Your task to perform on an android device: find snoozed emails in the gmail app Image 0: 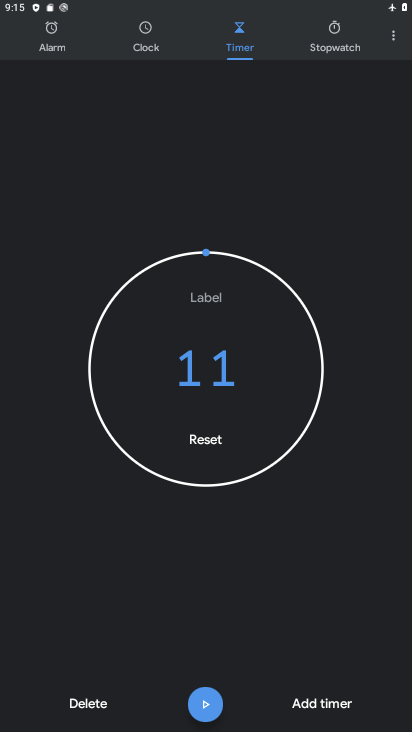
Step 0: press home button
Your task to perform on an android device: find snoozed emails in the gmail app Image 1: 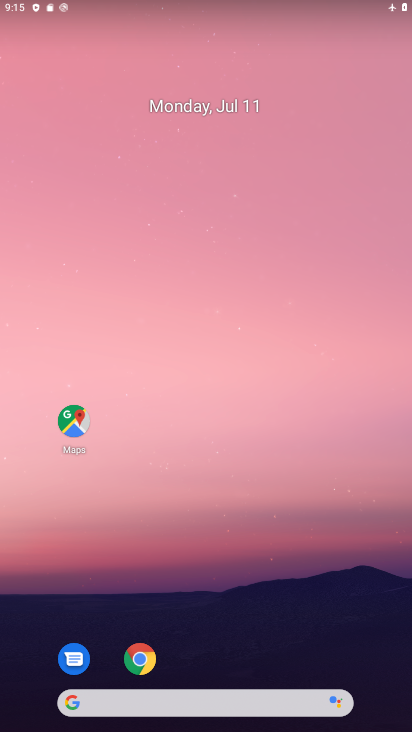
Step 1: drag from (200, 622) to (185, 279)
Your task to perform on an android device: find snoozed emails in the gmail app Image 2: 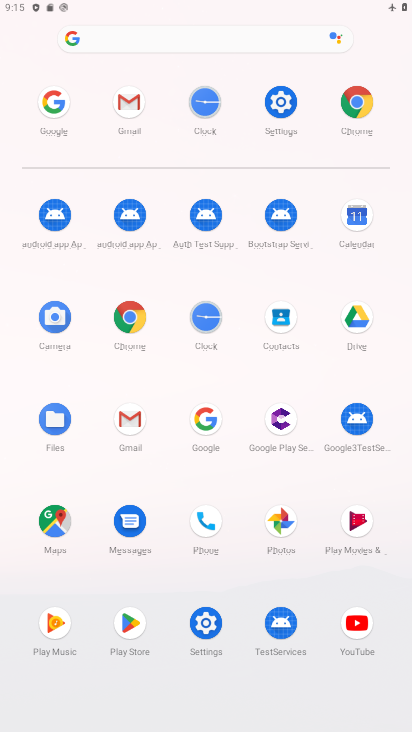
Step 2: click (118, 97)
Your task to perform on an android device: find snoozed emails in the gmail app Image 3: 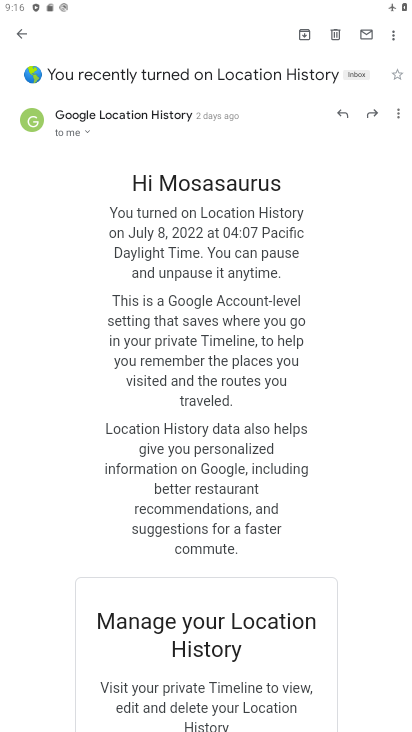
Step 3: click (28, 30)
Your task to perform on an android device: find snoozed emails in the gmail app Image 4: 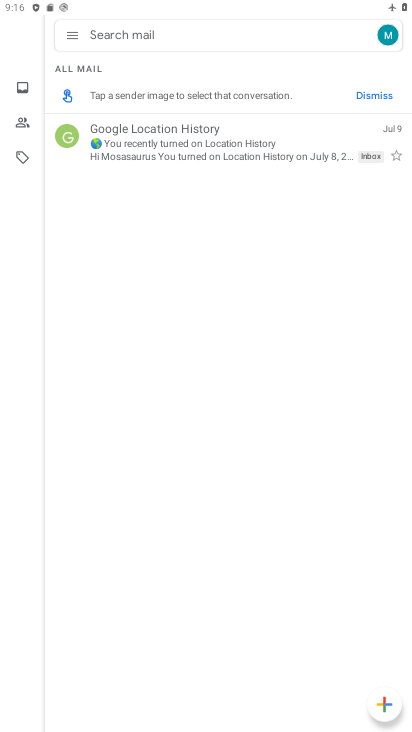
Step 4: click (62, 32)
Your task to perform on an android device: find snoozed emails in the gmail app Image 5: 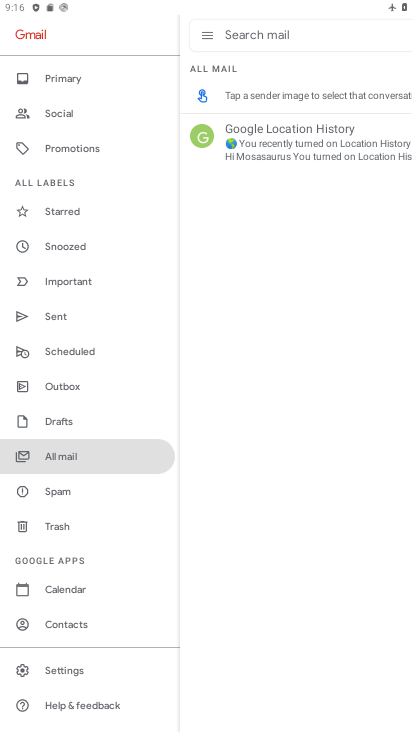
Step 5: click (108, 245)
Your task to perform on an android device: find snoozed emails in the gmail app Image 6: 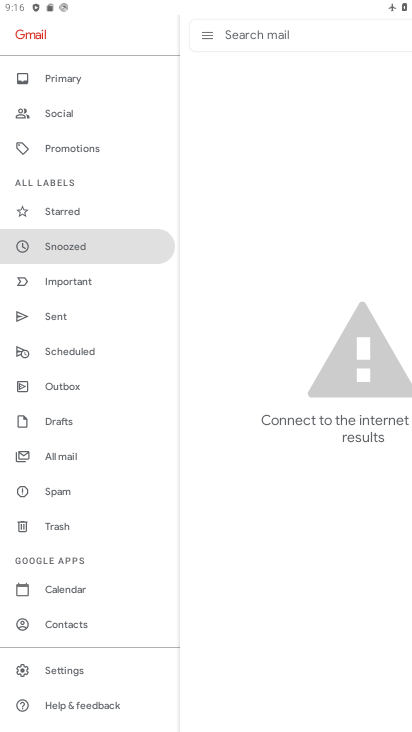
Step 6: task complete